Your task to perform on an android device: Go to Wikipedia Image 0: 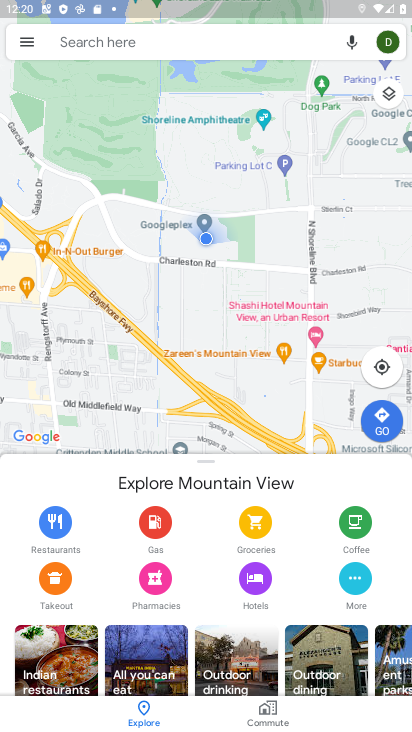
Step 0: press home button
Your task to perform on an android device: Go to Wikipedia Image 1: 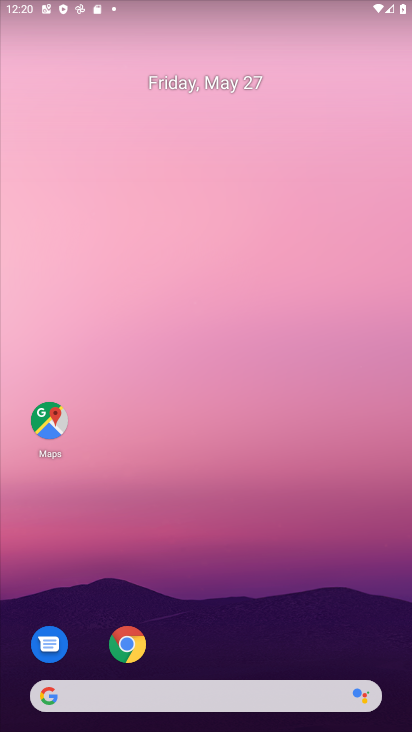
Step 1: drag from (328, 644) to (223, 14)
Your task to perform on an android device: Go to Wikipedia Image 2: 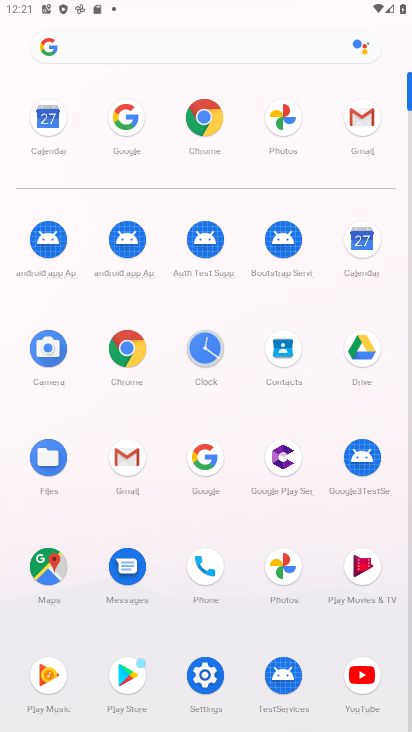
Step 2: click (194, 466)
Your task to perform on an android device: Go to Wikipedia Image 3: 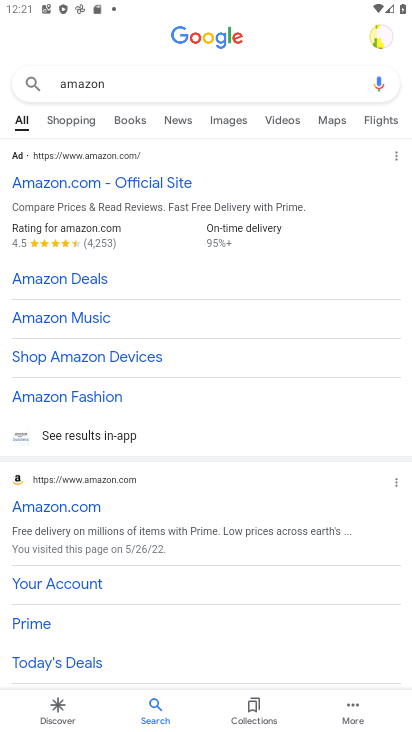
Step 3: press back button
Your task to perform on an android device: Go to Wikipedia Image 4: 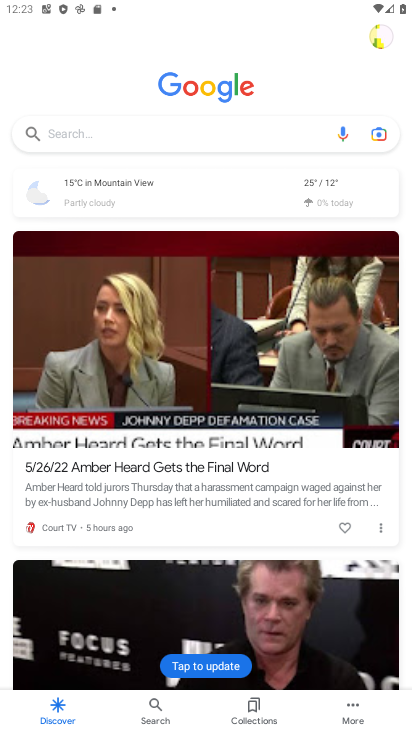
Step 4: click (154, 135)
Your task to perform on an android device: Go to Wikipedia Image 5: 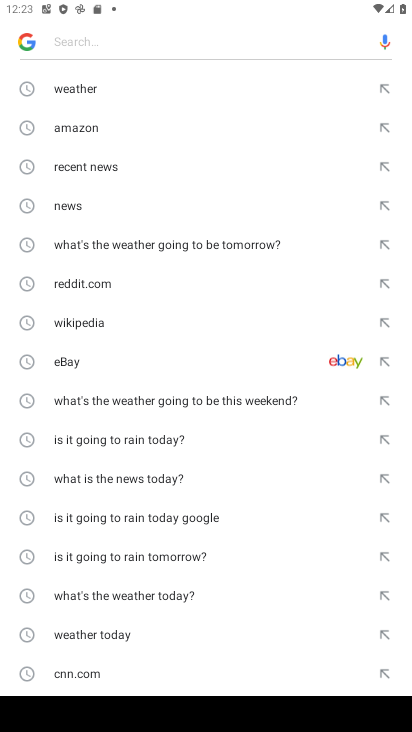
Step 5: click (99, 317)
Your task to perform on an android device: Go to Wikipedia Image 6: 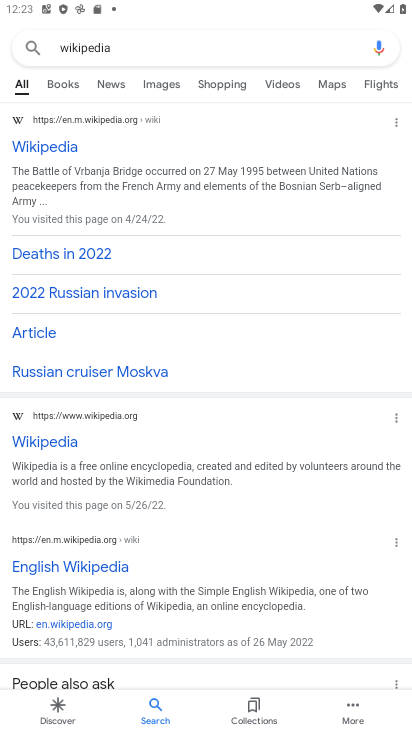
Step 6: task complete